Your task to perform on an android device: open the mobile data screen to see how much data has been used Image 0: 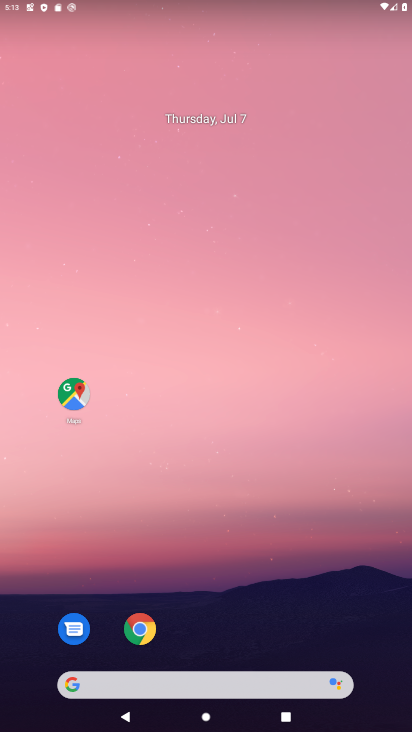
Step 0: drag from (265, 588) to (183, 125)
Your task to perform on an android device: open the mobile data screen to see how much data has been used Image 1: 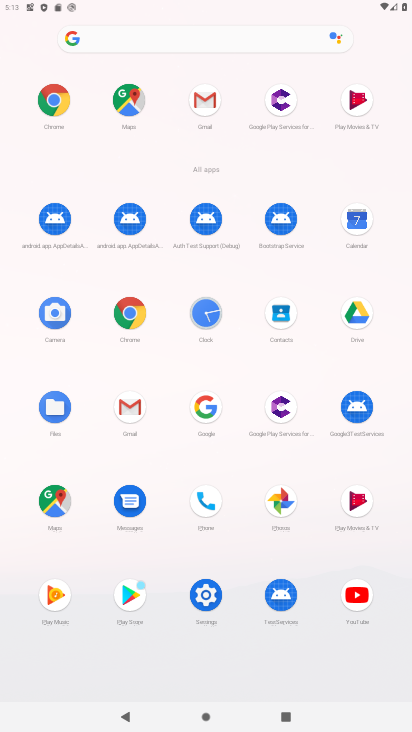
Step 1: drag from (239, 0) to (205, 468)
Your task to perform on an android device: open the mobile data screen to see how much data has been used Image 2: 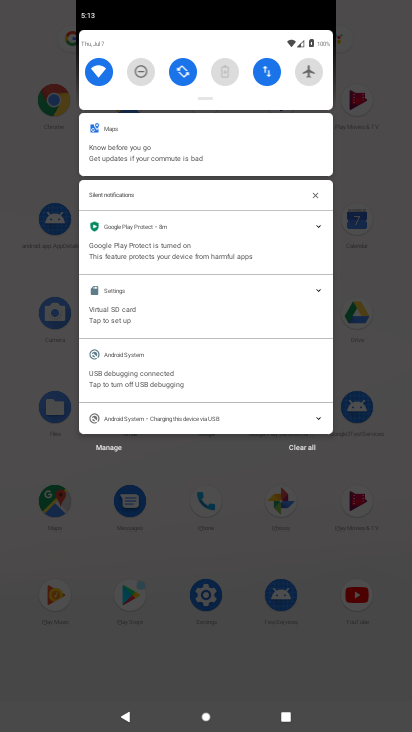
Step 2: drag from (204, 95) to (217, 308)
Your task to perform on an android device: open the mobile data screen to see how much data has been used Image 3: 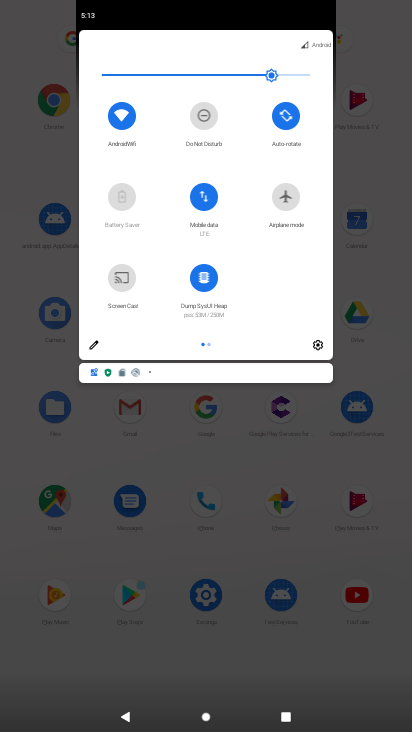
Step 3: click (297, 159)
Your task to perform on an android device: open the mobile data screen to see how much data has been used Image 4: 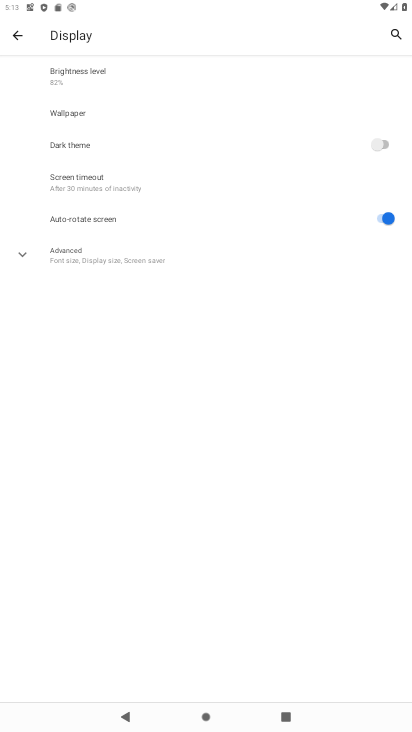
Step 4: click (8, 32)
Your task to perform on an android device: open the mobile data screen to see how much data has been used Image 5: 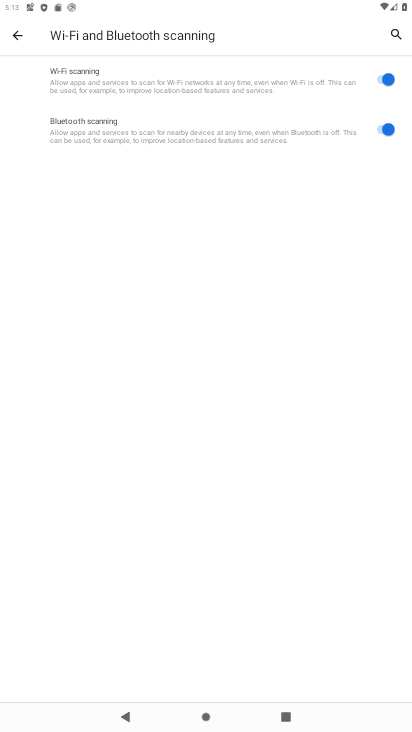
Step 5: drag from (123, 449) to (211, 713)
Your task to perform on an android device: open the mobile data screen to see how much data has been used Image 6: 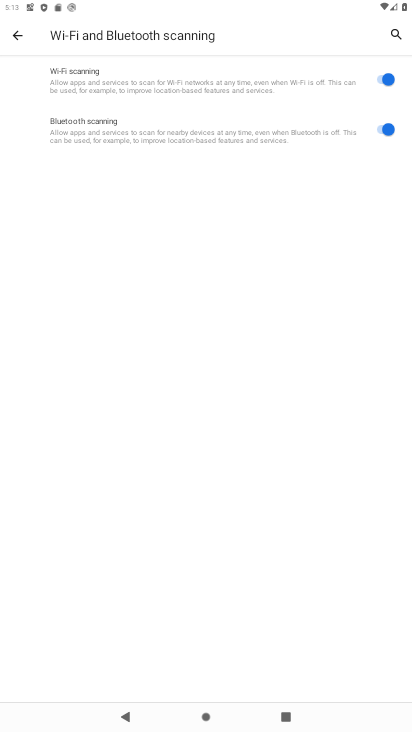
Step 6: press home button
Your task to perform on an android device: open the mobile data screen to see how much data has been used Image 7: 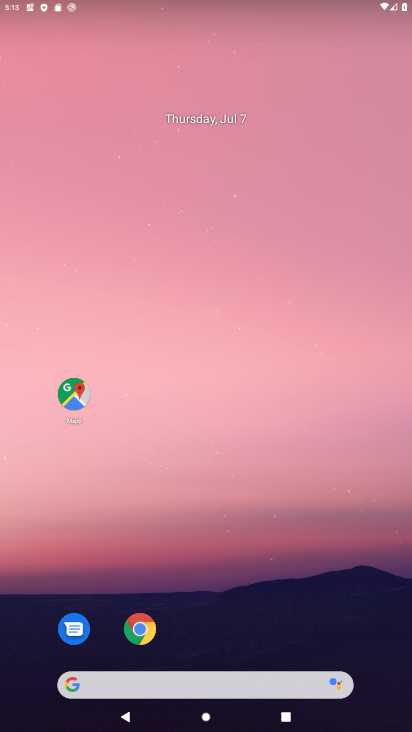
Step 7: drag from (219, 6) to (173, 370)
Your task to perform on an android device: open the mobile data screen to see how much data has been used Image 8: 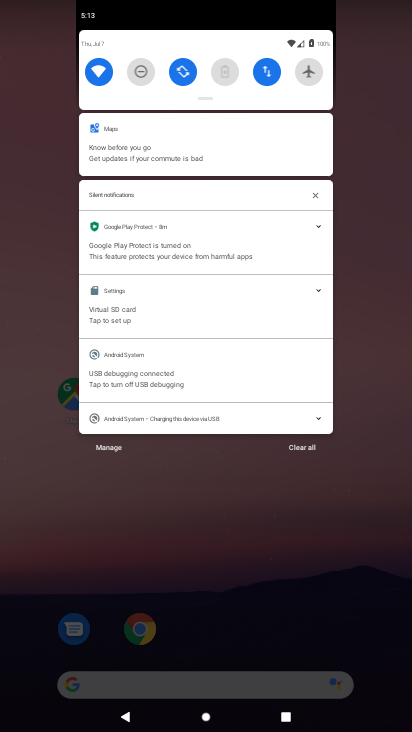
Step 8: drag from (199, 95) to (230, 325)
Your task to perform on an android device: open the mobile data screen to see how much data has been used Image 9: 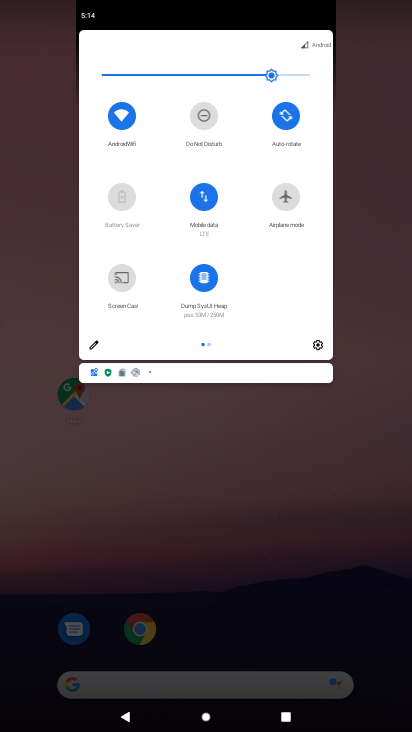
Step 9: click (215, 213)
Your task to perform on an android device: open the mobile data screen to see how much data has been used Image 10: 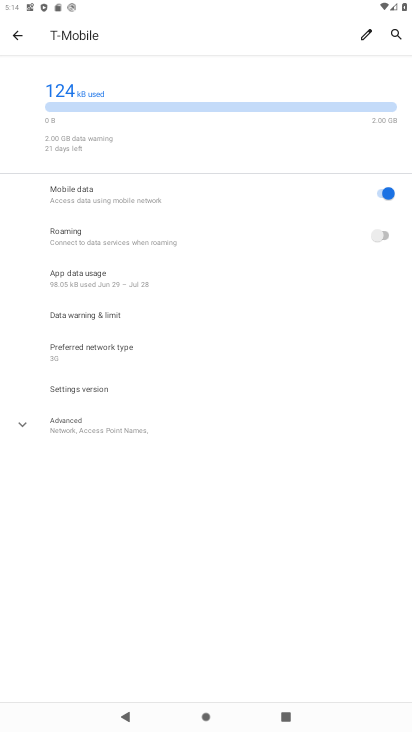
Step 10: task complete